Your task to perform on an android device: Go to Android settings Image 0: 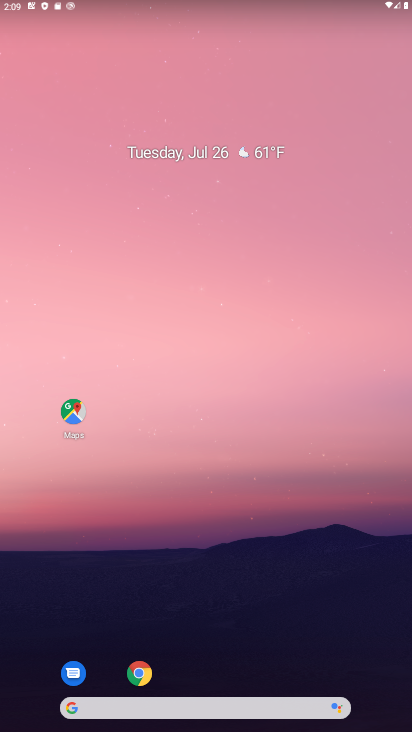
Step 0: drag from (187, 652) to (242, 167)
Your task to perform on an android device: Go to Android settings Image 1: 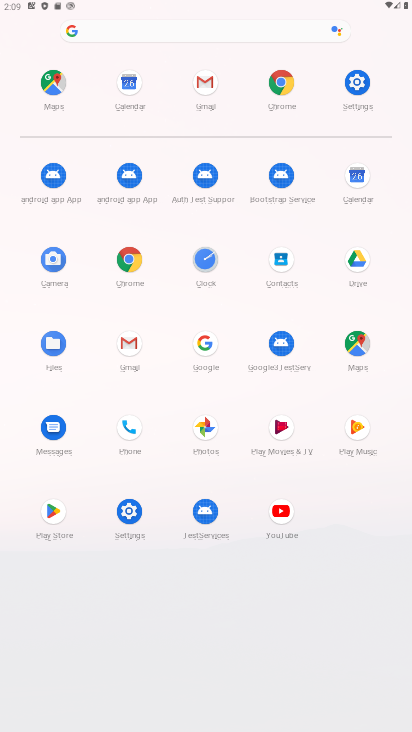
Step 1: click (124, 522)
Your task to perform on an android device: Go to Android settings Image 2: 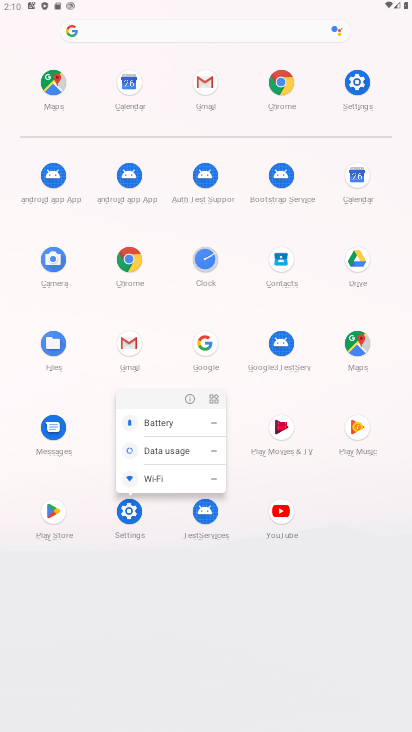
Step 2: click (185, 400)
Your task to perform on an android device: Go to Android settings Image 3: 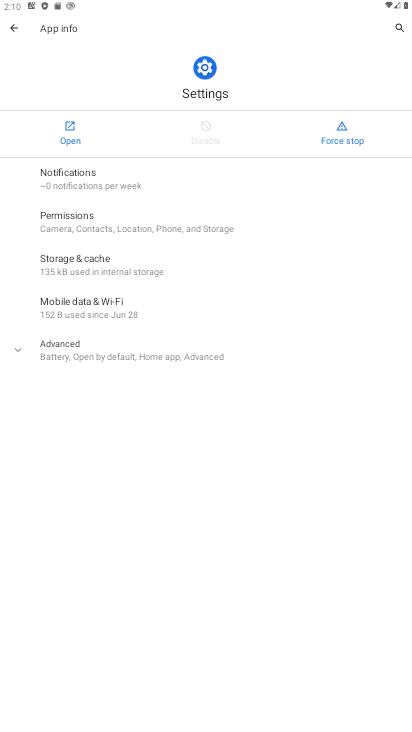
Step 3: click (75, 127)
Your task to perform on an android device: Go to Android settings Image 4: 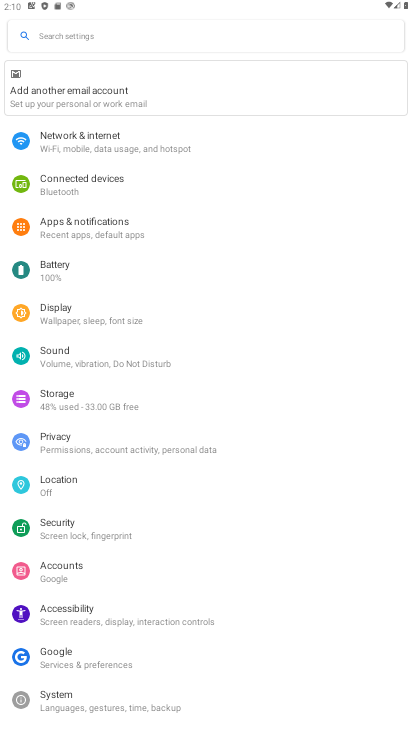
Step 4: drag from (169, 613) to (178, 156)
Your task to perform on an android device: Go to Android settings Image 5: 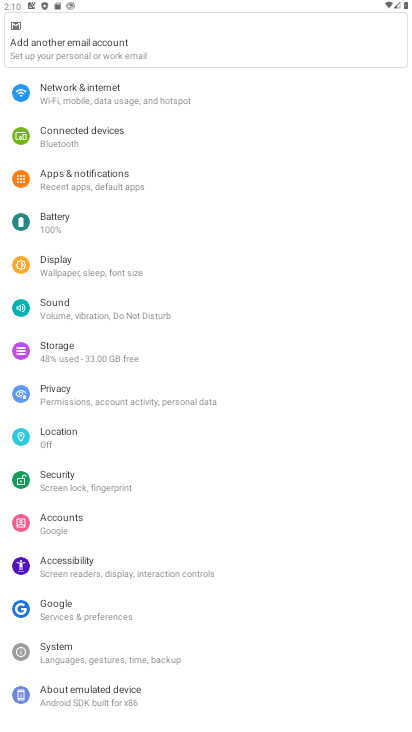
Step 5: click (109, 694)
Your task to perform on an android device: Go to Android settings Image 6: 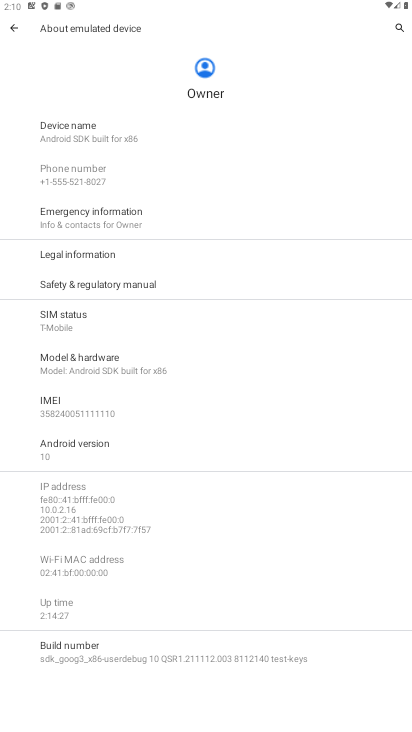
Step 6: click (93, 439)
Your task to perform on an android device: Go to Android settings Image 7: 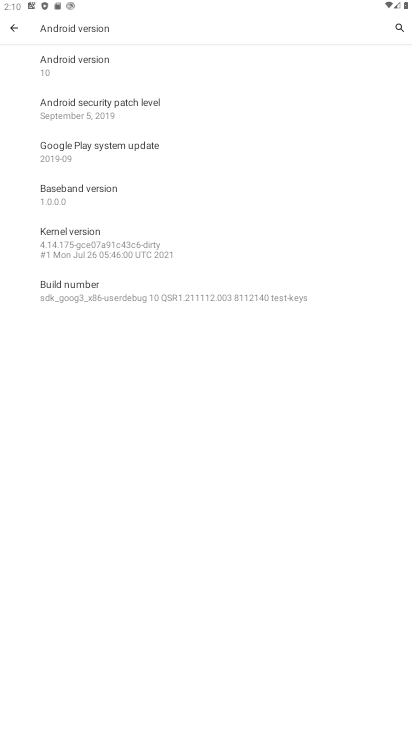
Step 7: drag from (189, 585) to (210, 439)
Your task to perform on an android device: Go to Android settings Image 8: 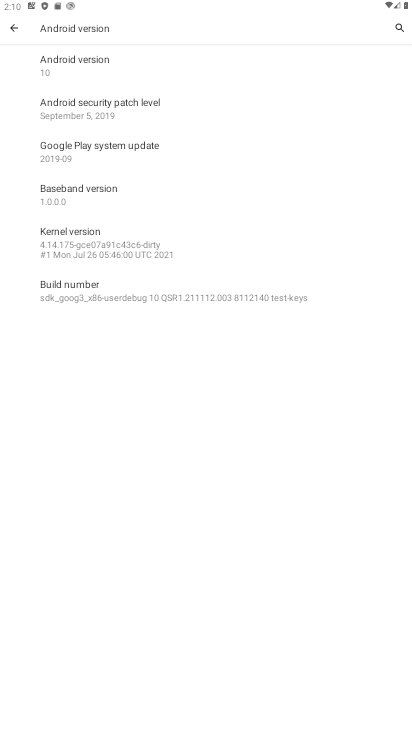
Step 8: click (78, 48)
Your task to perform on an android device: Go to Android settings Image 9: 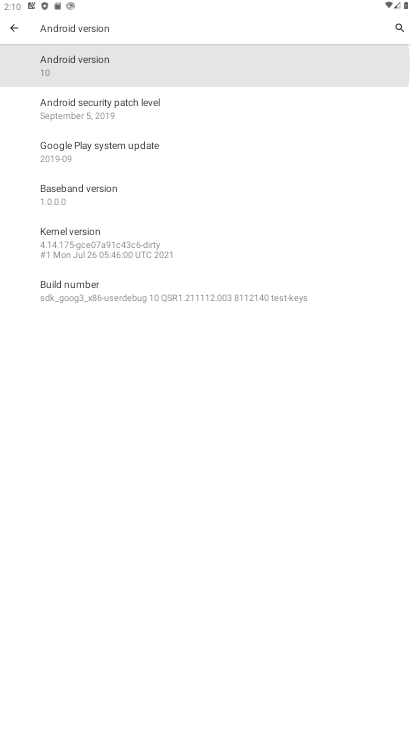
Step 9: click (93, 61)
Your task to perform on an android device: Go to Android settings Image 10: 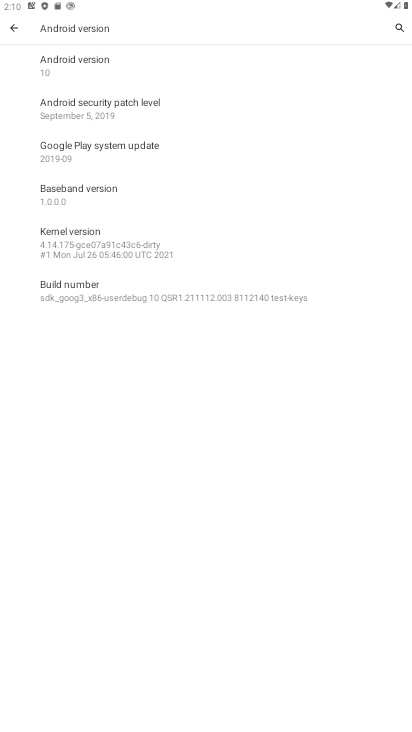
Step 10: task complete